Your task to perform on an android device: Do I have any events today? Image 0: 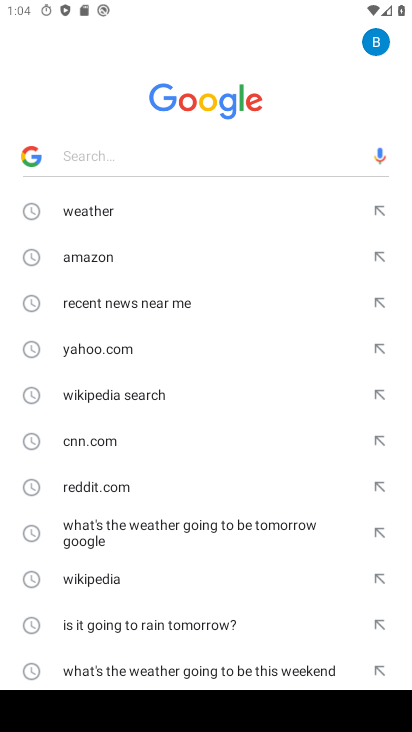
Step 0: press home button
Your task to perform on an android device: Do I have any events today? Image 1: 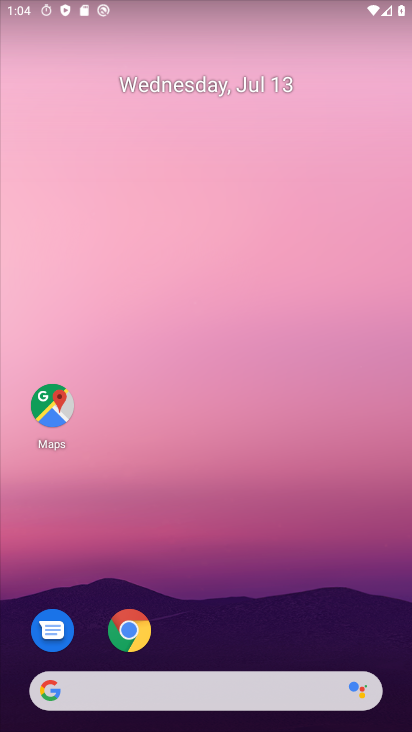
Step 1: drag from (371, 612) to (296, 121)
Your task to perform on an android device: Do I have any events today? Image 2: 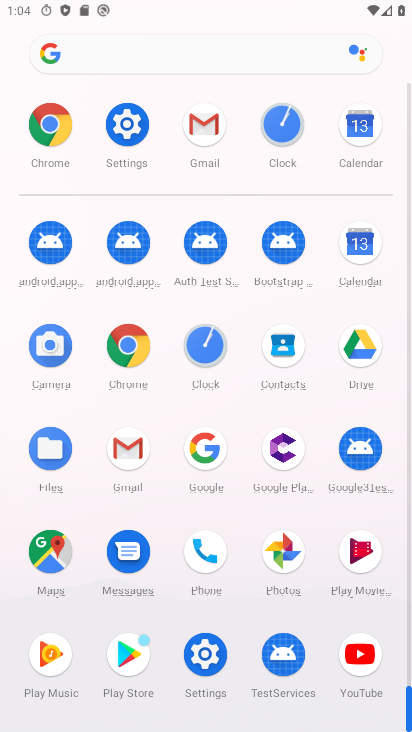
Step 2: click (351, 264)
Your task to perform on an android device: Do I have any events today? Image 3: 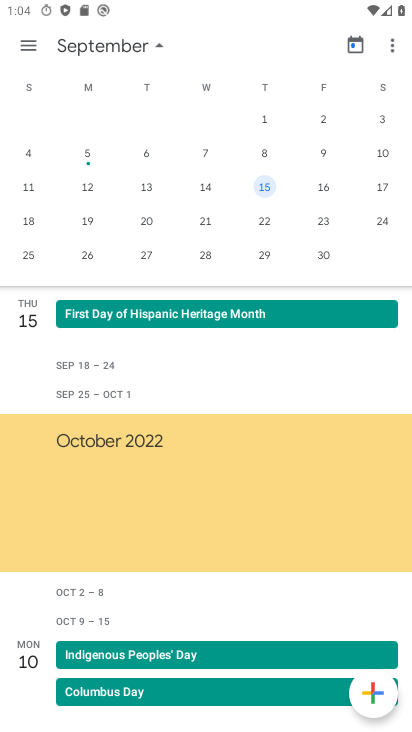
Step 3: task complete